Your task to perform on an android device: open chrome privacy settings Image 0: 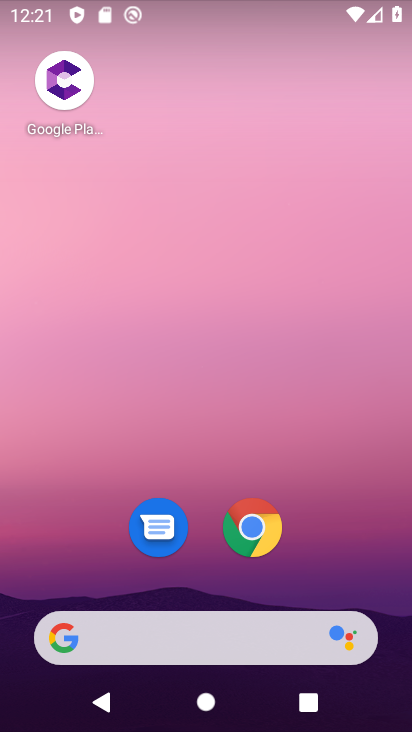
Step 0: click (237, 525)
Your task to perform on an android device: open chrome privacy settings Image 1: 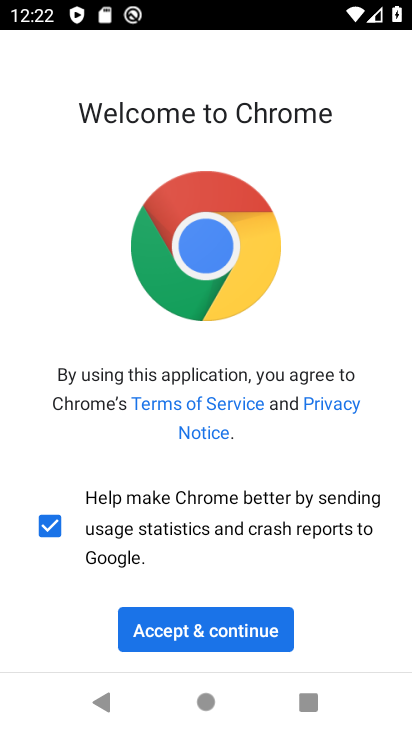
Step 1: click (252, 632)
Your task to perform on an android device: open chrome privacy settings Image 2: 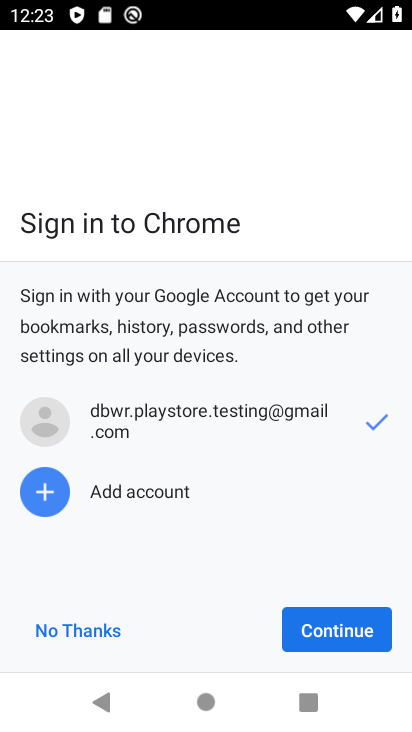
Step 2: click (358, 628)
Your task to perform on an android device: open chrome privacy settings Image 3: 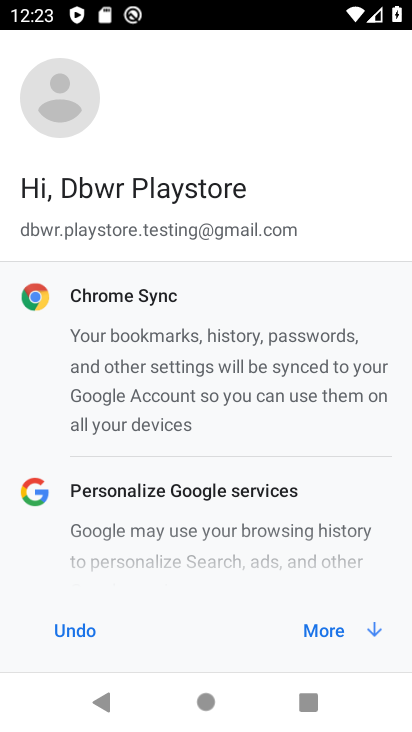
Step 3: click (358, 628)
Your task to perform on an android device: open chrome privacy settings Image 4: 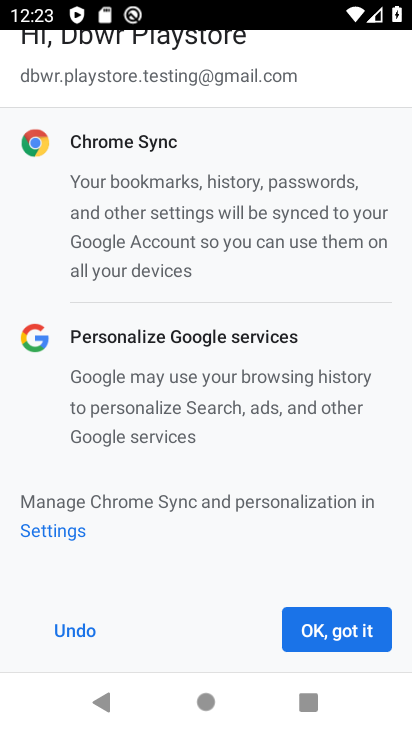
Step 4: click (326, 624)
Your task to perform on an android device: open chrome privacy settings Image 5: 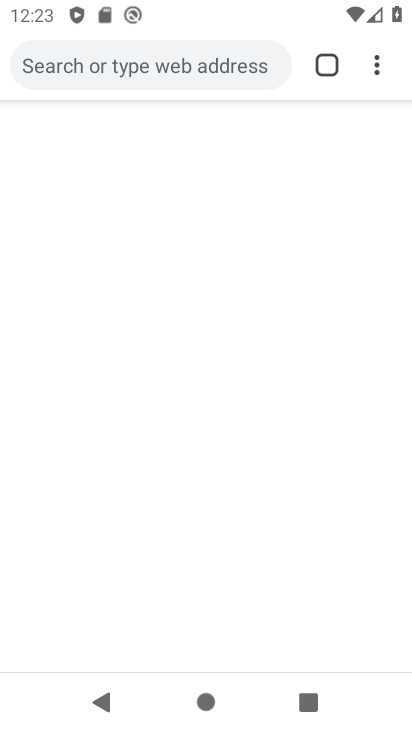
Step 5: click (326, 624)
Your task to perform on an android device: open chrome privacy settings Image 6: 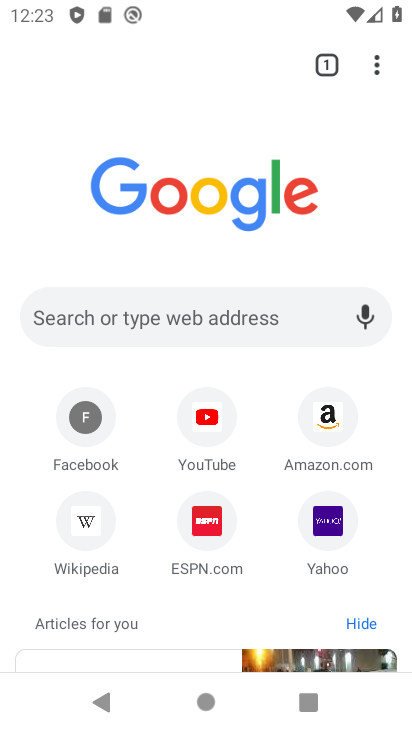
Step 6: click (377, 60)
Your task to perform on an android device: open chrome privacy settings Image 7: 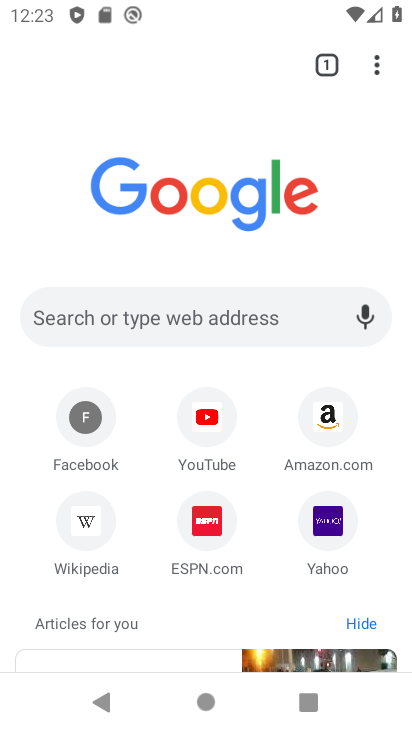
Step 7: click (371, 64)
Your task to perform on an android device: open chrome privacy settings Image 8: 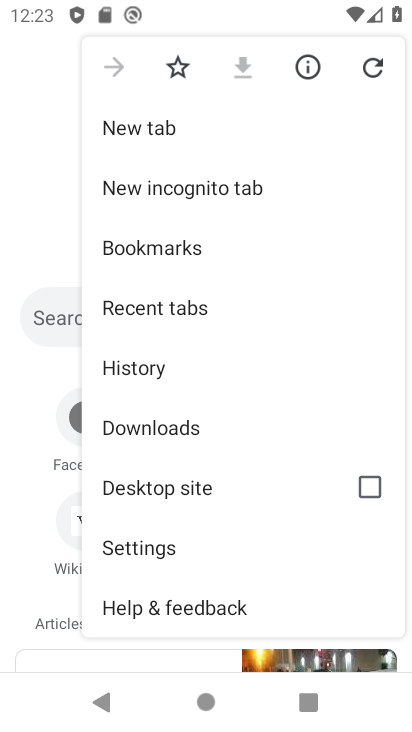
Step 8: click (125, 544)
Your task to perform on an android device: open chrome privacy settings Image 9: 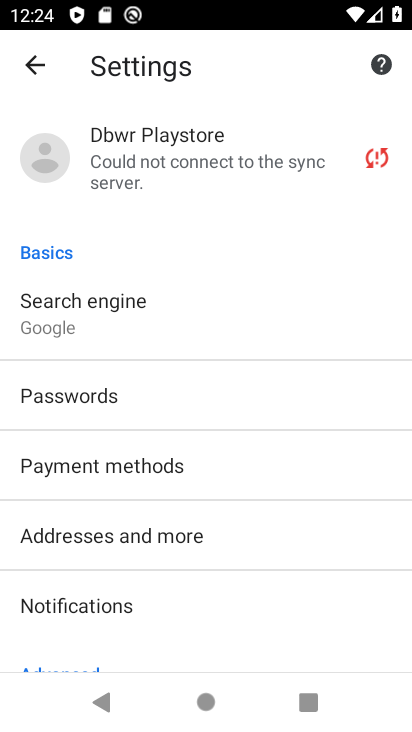
Step 9: drag from (248, 622) to (269, 366)
Your task to perform on an android device: open chrome privacy settings Image 10: 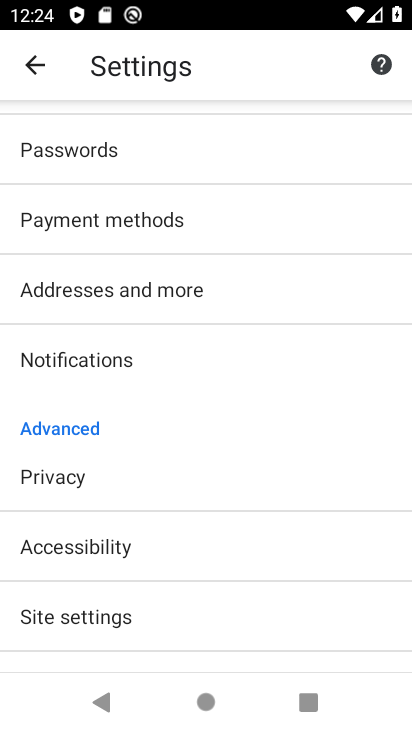
Step 10: click (83, 474)
Your task to perform on an android device: open chrome privacy settings Image 11: 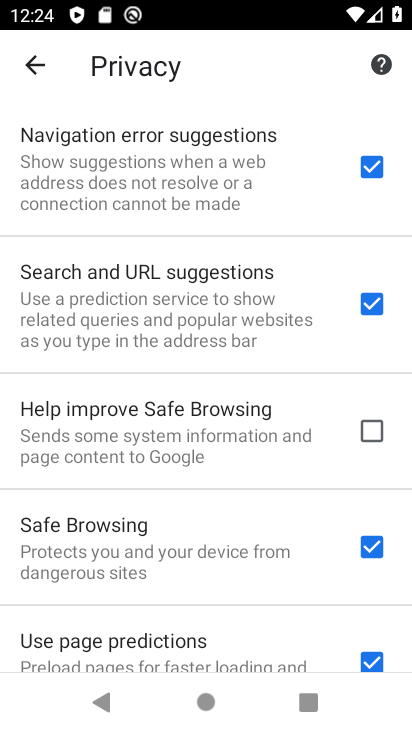
Step 11: task complete